Your task to perform on an android device: Show me the alarms in the clock app Image 0: 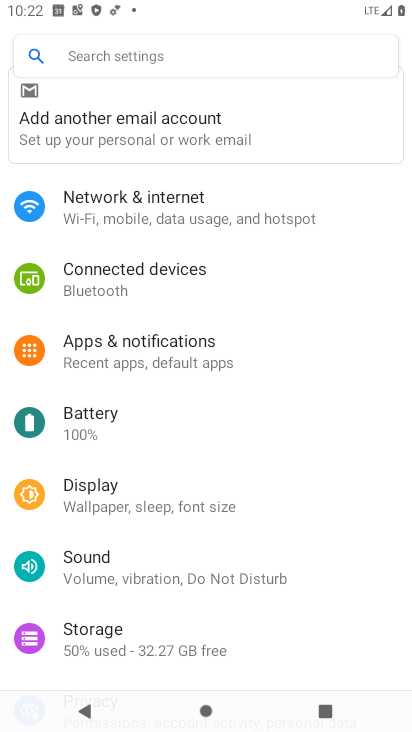
Step 0: press home button
Your task to perform on an android device: Show me the alarms in the clock app Image 1: 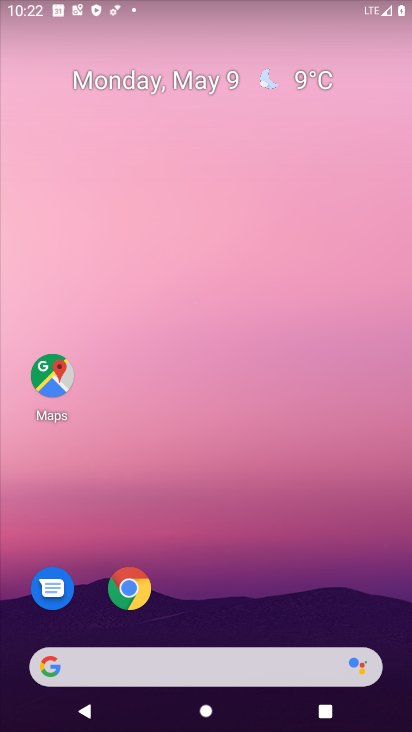
Step 1: drag from (184, 667) to (268, 161)
Your task to perform on an android device: Show me the alarms in the clock app Image 2: 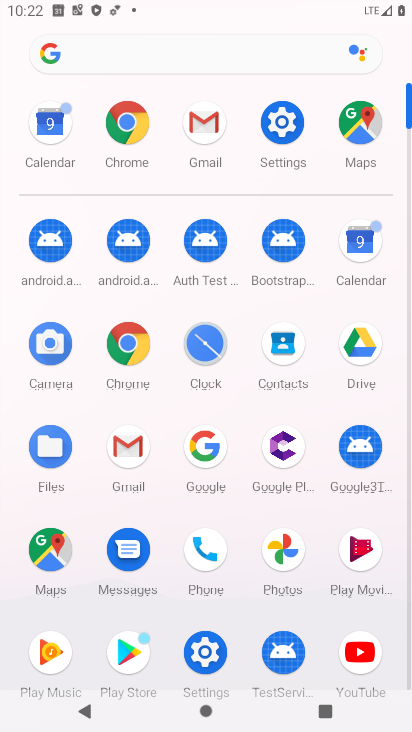
Step 2: click (199, 337)
Your task to perform on an android device: Show me the alarms in the clock app Image 3: 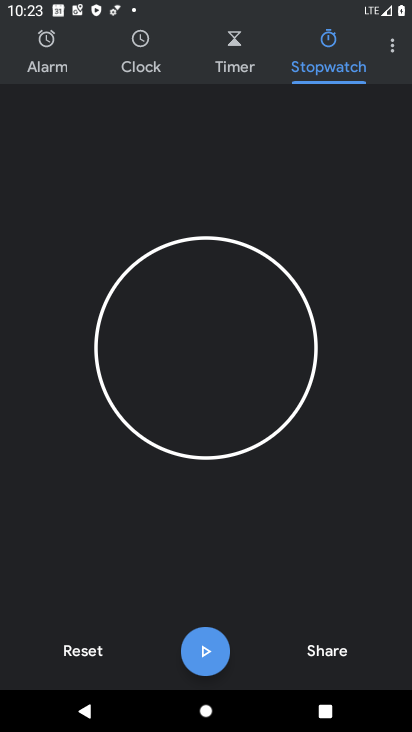
Step 3: click (39, 53)
Your task to perform on an android device: Show me the alarms in the clock app Image 4: 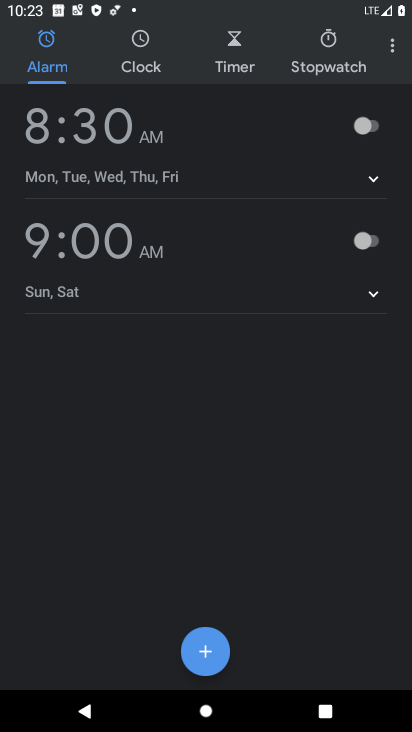
Step 4: task complete